Your task to perform on an android device: turn on priority inbox in the gmail app Image 0: 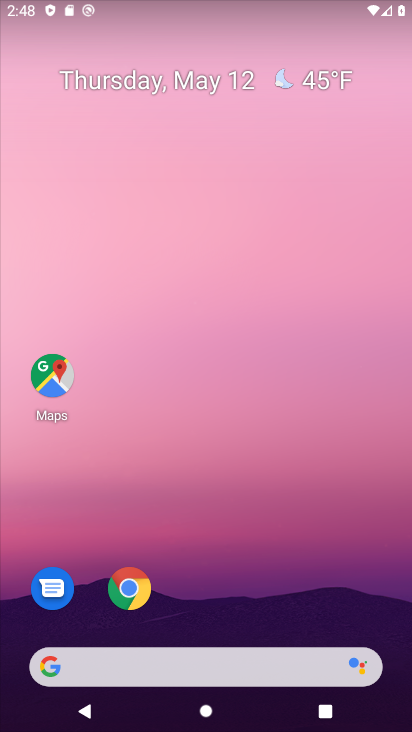
Step 0: drag from (220, 471) to (229, 206)
Your task to perform on an android device: turn on priority inbox in the gmail app Image 1: 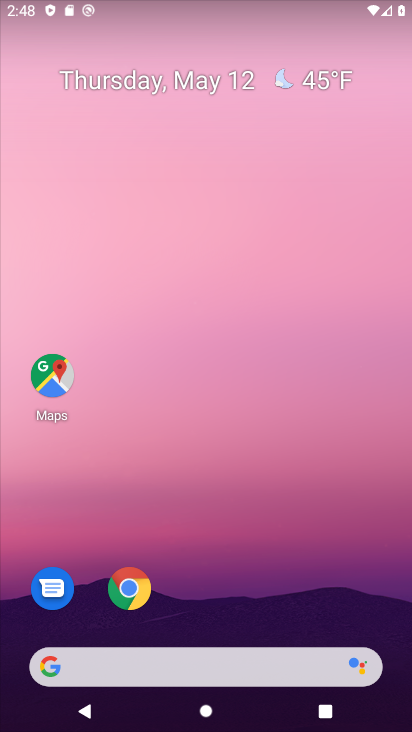
Step 1: drag from (230, 593) to (268, 143)
Your task to perform on an android device: turn on priority inbox in the gmail app Image 2: 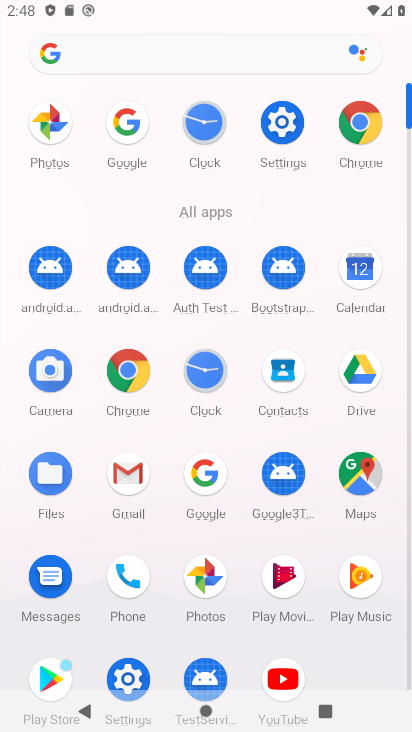
Step 2: click (133, 481)
Your task to perform on an android device: turn on priority inbox in the gmail app Image 3: 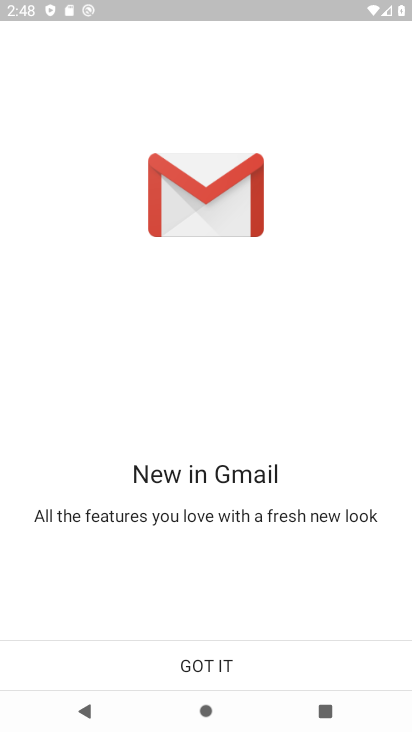
Step 3: click (217, 666)
Your task to perform on an android device: turn on priority inbox in the gmail app Image 4: 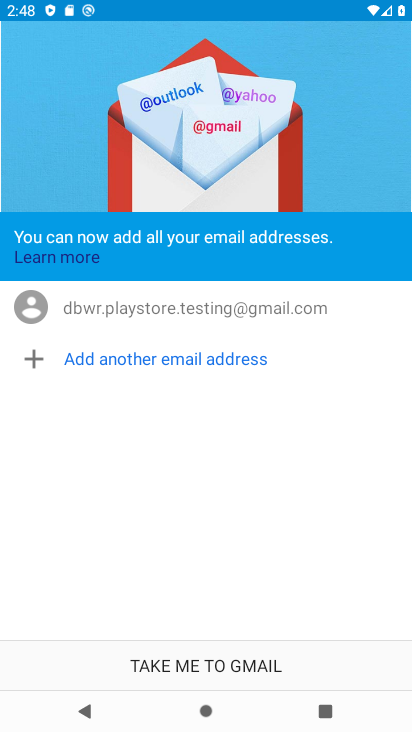
Step 4: click (217, 666)
Your task to perform on an android device: turn on priority inbox in the gmail app Image 5: 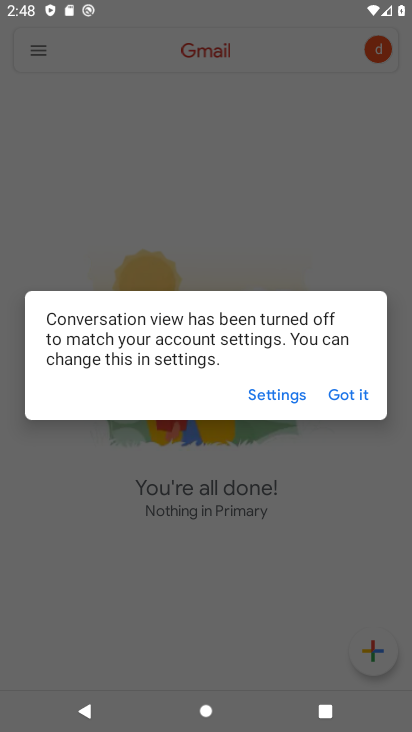
Step 5: click (344, 397)
Your task to perform on an android device: turn on priority inbox in the gmail app Image 6: 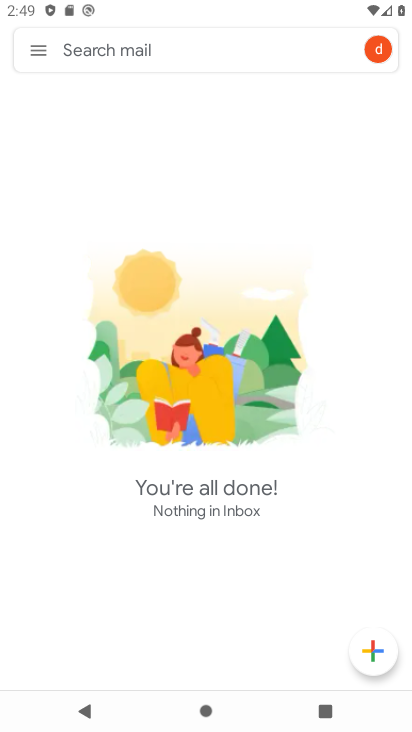
Step 6: click (42, 58)
Your task to perform on an android device: turn on priority inbox in the gmail app Image 7: 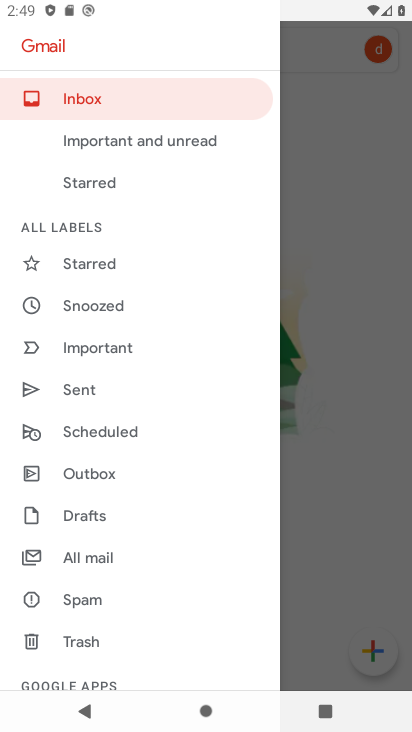
Step 7: drag from (98, 608) to (123, 406)
Your task to perform on an android device: turn on priority inbox in the gmail app Image 8: 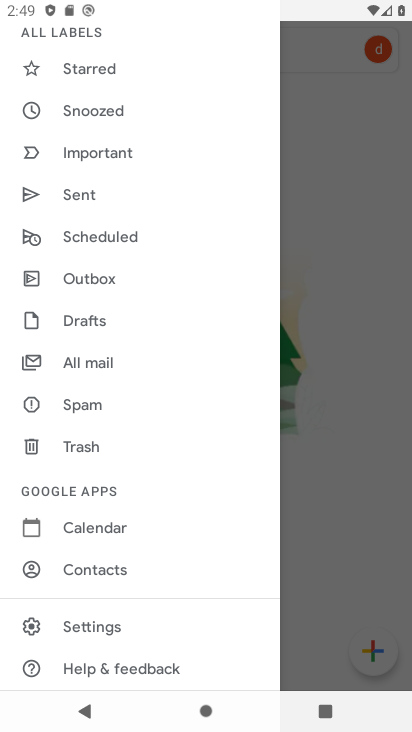
Step 8: click (83, 628)
Your task to perform on an android device: turn on priority inbox in the gmail app Image 9: 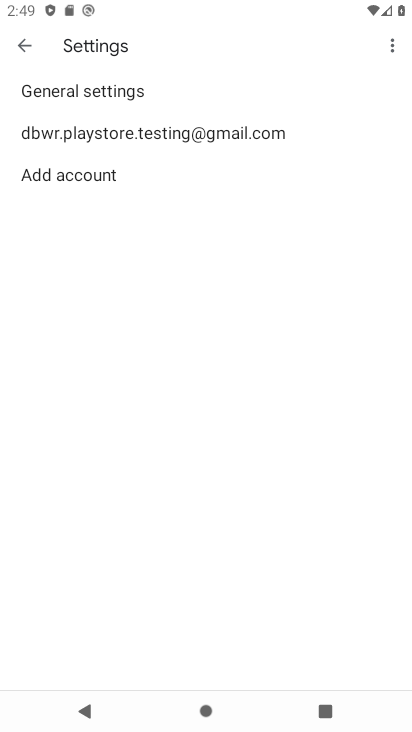
Step 9: click (184, 135)
Your task to perform on an android device: turn on priority inbox in the gmail app Image 10: 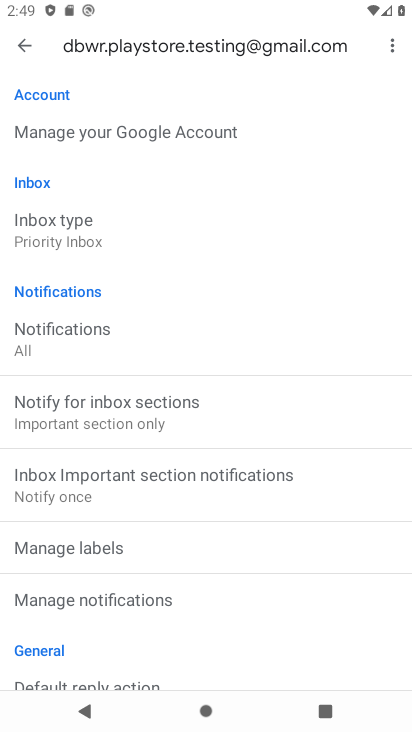
Step 10: task complete